Your task to perform on an android device: Open Yahoo.com Image 0: 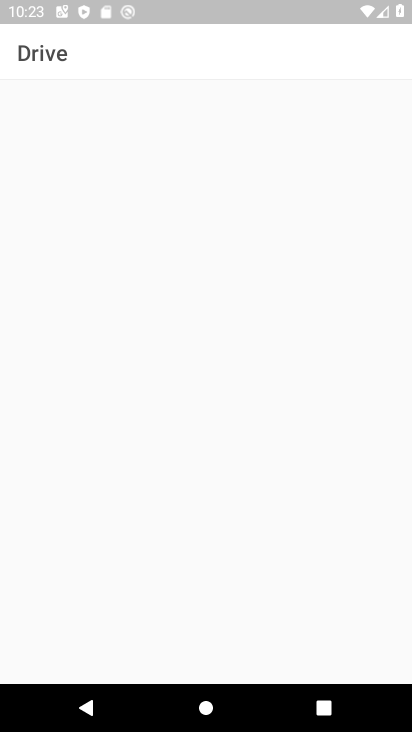
Step 0: press home button
Your task to perform on an android device: Open Yahoo.com Image 1: 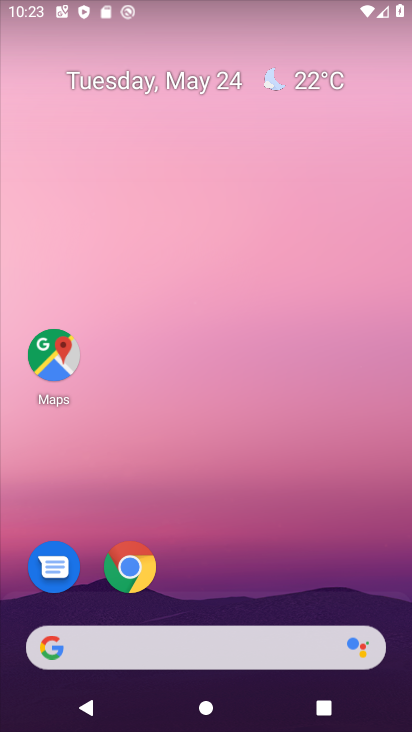
Step 1: click (133, 571)
Your task to perform on an android device: Open Yahoo.com Image 2: 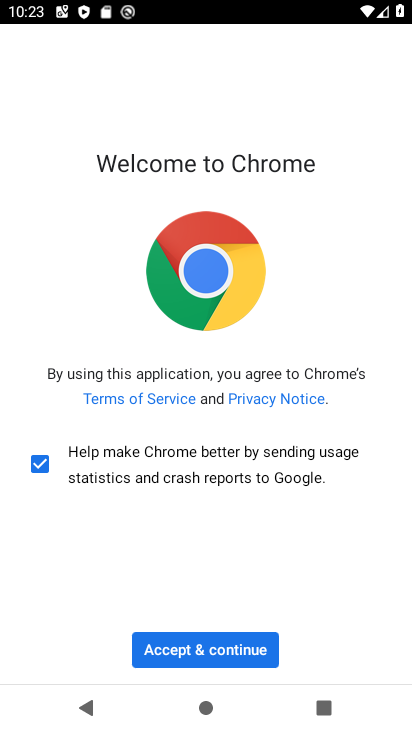
Step 2: click (202, 641)
Your task to perform on an android device: Open Yahoo.com Image 3: 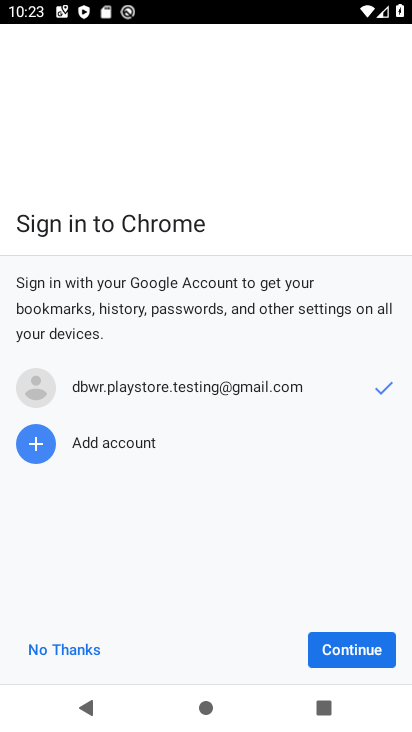
Step 3: click (202, 641)
Your task to perform on an android device: Open Yahoo.com Image 4: 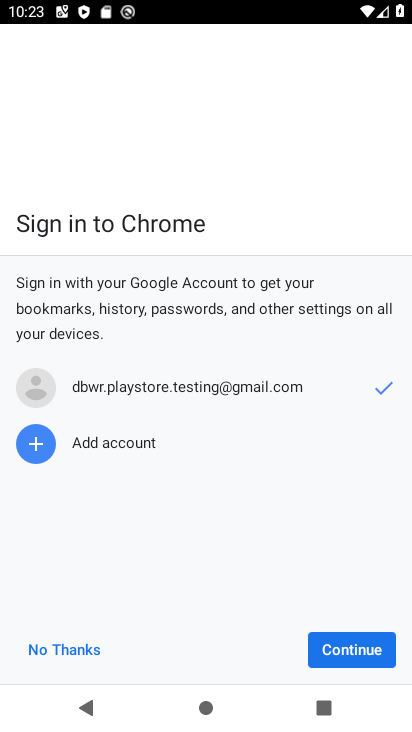
Step 4: click (349, 656)
Your task to perform on an android device: Open Yahoo.com Image 5: 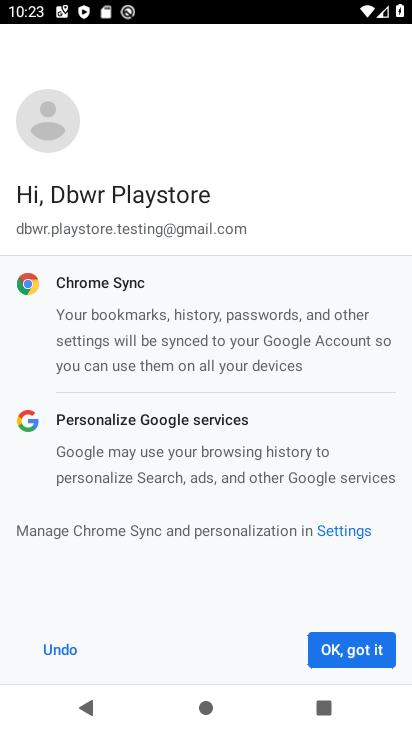
Step 5: click (349, 656)
Your task to perform on an android device: Open Yahoo.com Image 6: 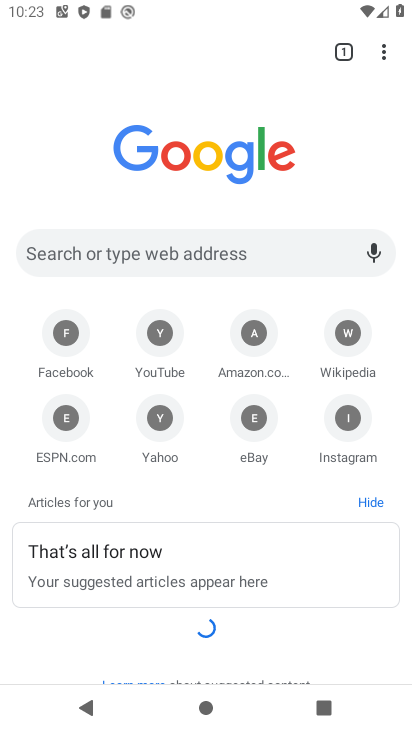
Step 6: click (154, 402)
Your task to perform on an android device: Open Yahoo.com Image 7: 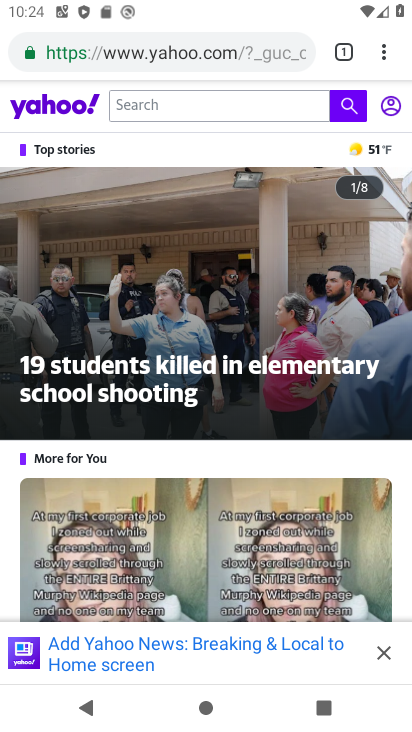
Step 7: task complete